Your task to perform on an android device: Go to calendar. Show me events next week Image 0: 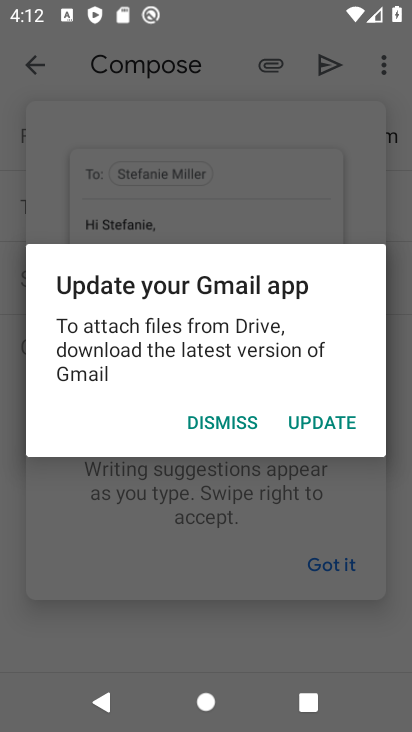
Step 0: press home button
Your task to perform on an android device: Go to calendar. Show me events next week Image 1: 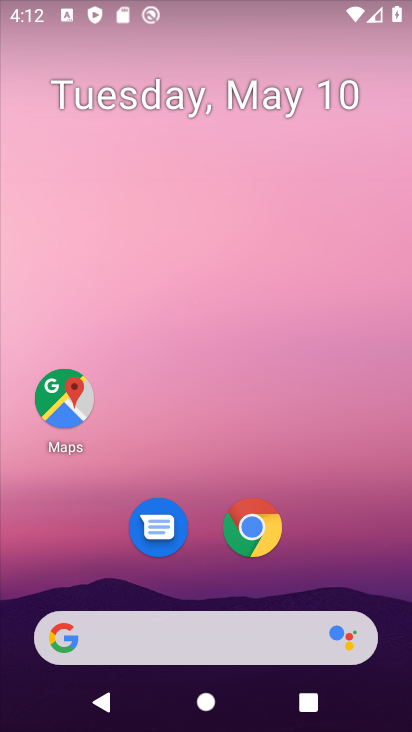
Step 1: drag from (257, 459) to (251, 13)
Your task to perform on an android device: Go to calendar. Show me events next week Image 2: 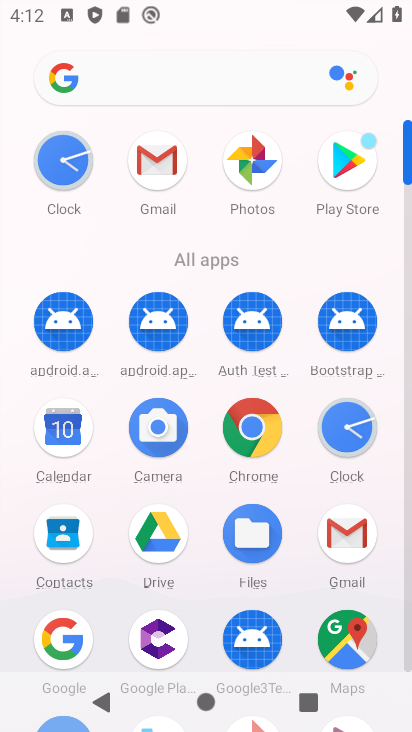
Step 2: click (56, 432)
Your task to perform on an android device: Go to calendar. Show me events next week Image 3: 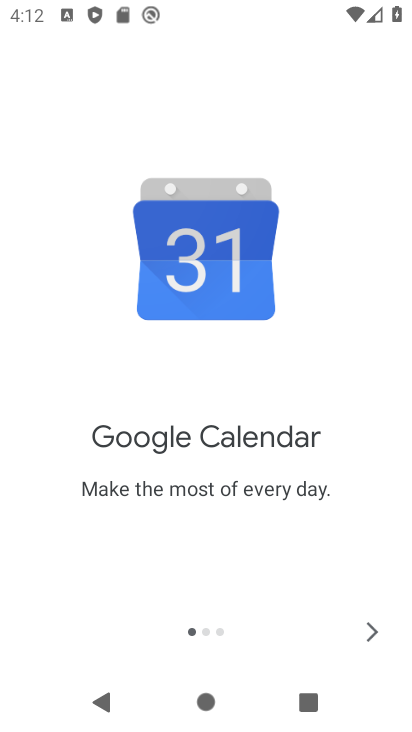
Step 3: click (372, 635)
Your task to perform on an android device: Go to calendar. Show me events next week Image 4: 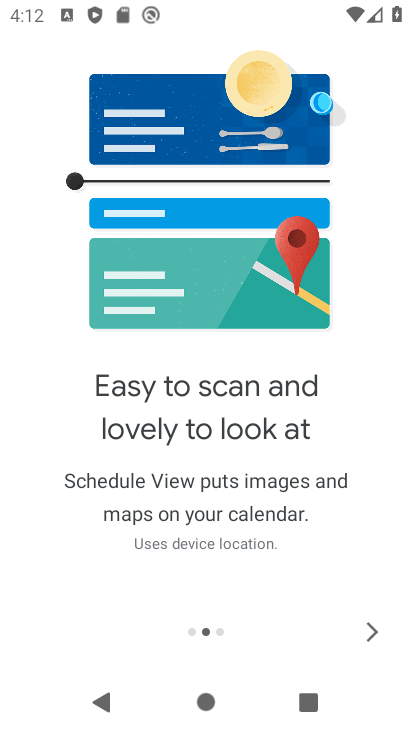
Step 4: click (372, 635)
Your task to perform on an android device: Go to calendar. Show me events next week Image 5: 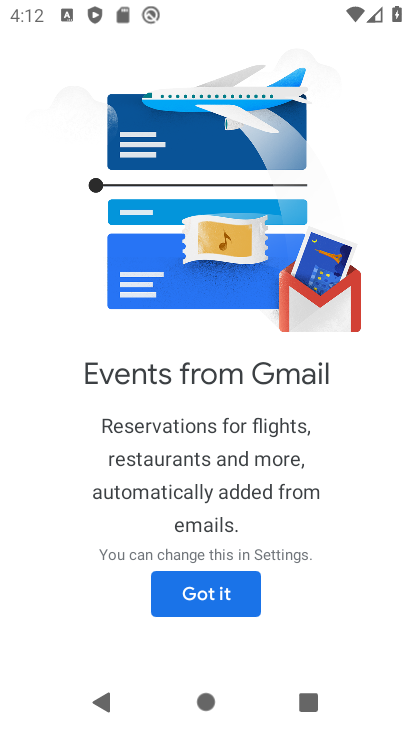
Step 5: click (247, 602)
Your task to perform on an android device: Go to calendar. Show me events next week Image 6: 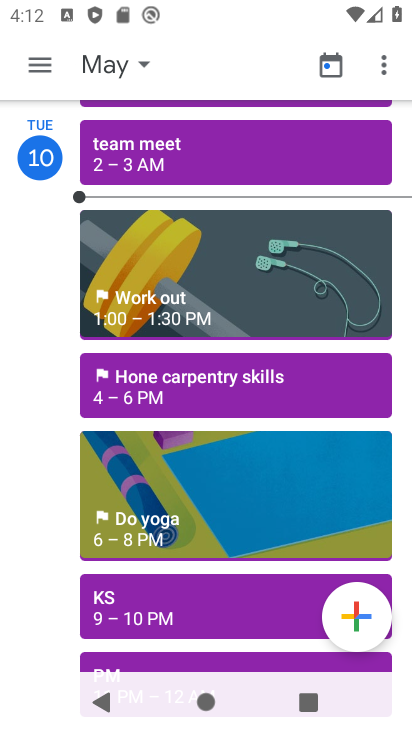
Step 6: click (42, 56)
Your task to perform on an android device: Go to calendar. Show me events next week Image 7: 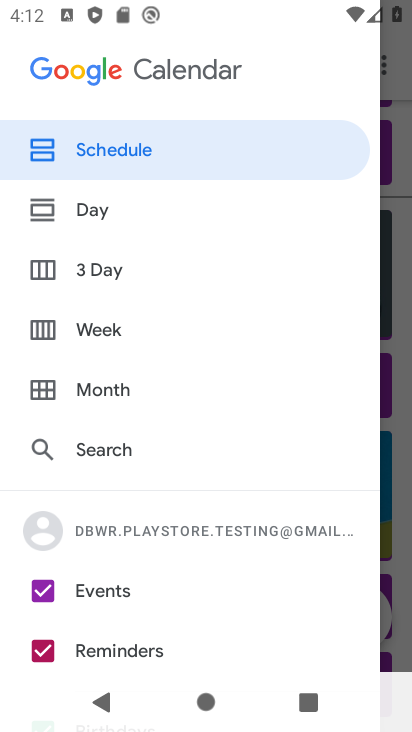
Step 7: click (35, 328)
Your task to perform on an android device: Go to calendar. Show me events next week Image 8: 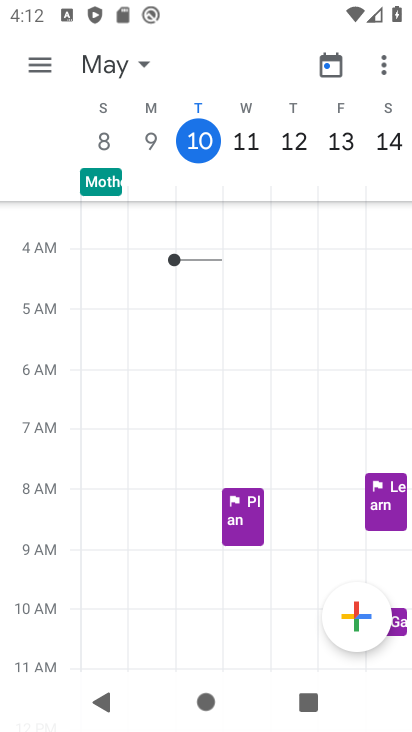
Step 8: task complete